Your task to perform on an android device: Open notification settings Image 0: 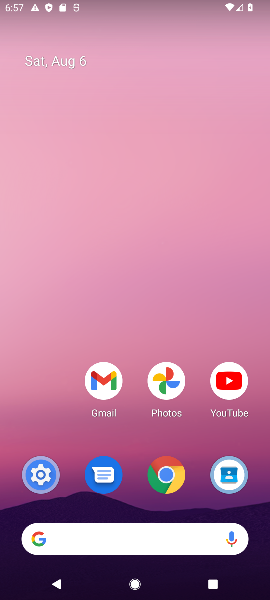
Step 0: drag from (127, 427) to (118, 146)
Your task to perform on an android device: Open notification settings Image 1: 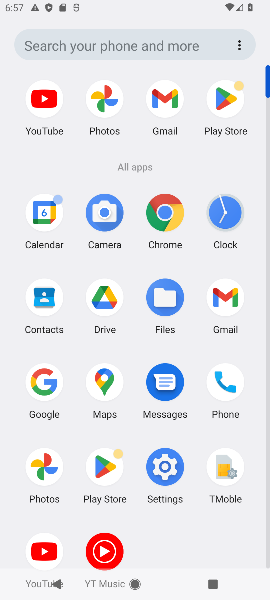
Step 1: click (168, 469)
Your task to perform on an android device: Open notification settings Image 2: 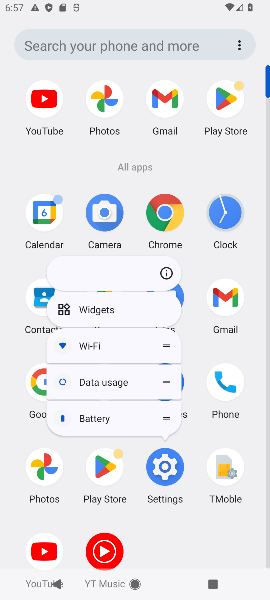
Step 2: click (169, 470)
Your task to perform on an android device: Open notification settings Image 3: 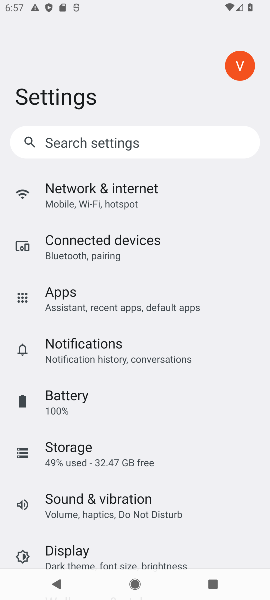
Step 3: click (131, 363)
Your task to perform on an android device: Open notification settings Image 4: 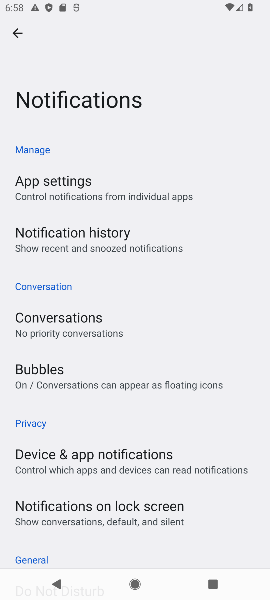
Step 4: task complete